Your task to perform on an android device: Search for Mexican restaurants on Maps Image 0: 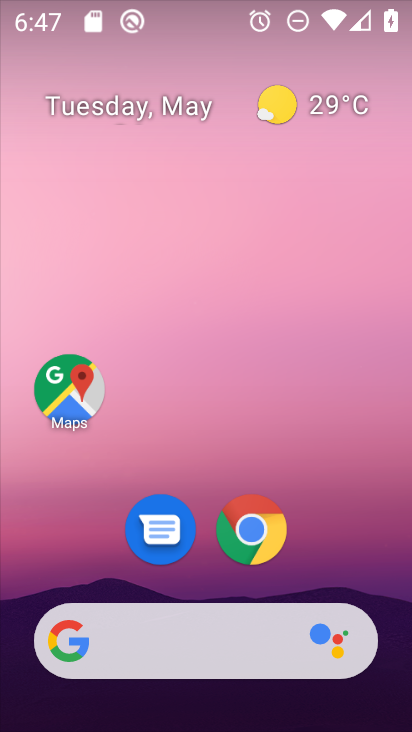
Step 0: drag from (377, 623) to (243, 198)
Your task to perform on an android device: Search for Mexican restaurants on Maps Image 1: 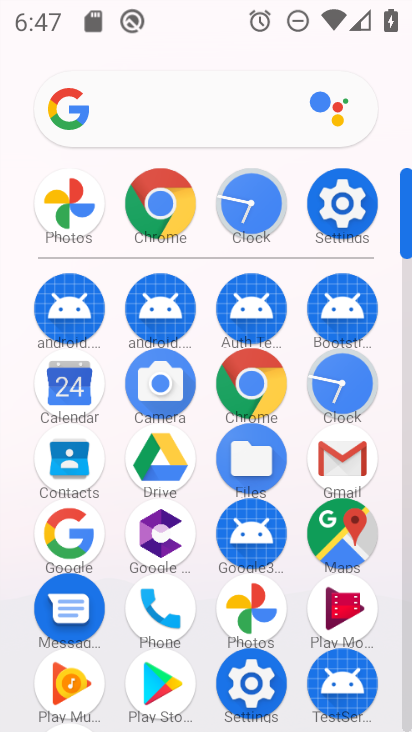
Step 1: click (333, 541)
Your task to perform on an android device: Search for Mexican restaurants on Maps Image 2: 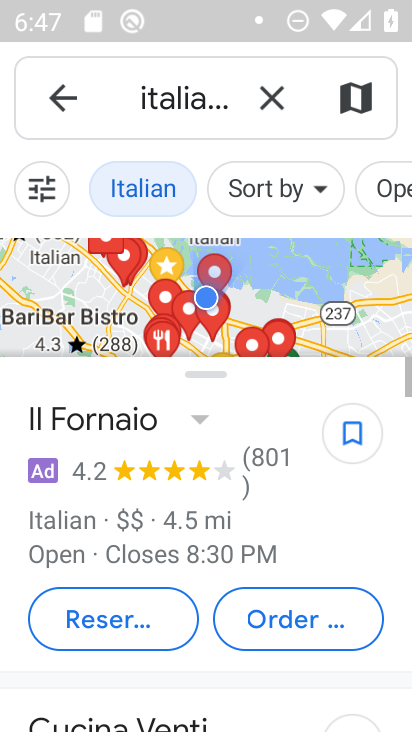
Step 2: click (264, 99)
Your task to perform on an android device: Search for Mexican restaurants on Maps Image 3: 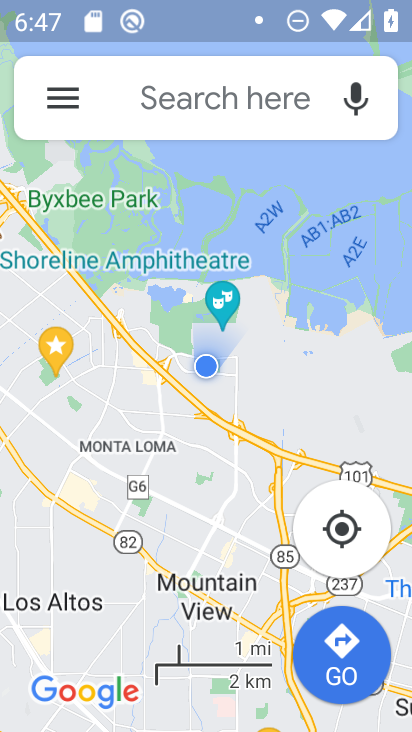
Step 3: click (205, 101)
Your task to perform on an android device: Search for Mexican restaurants on Maps Image 4: 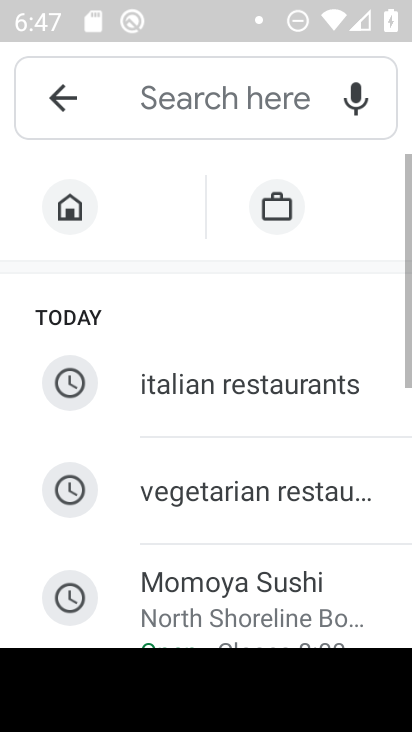
Step 4: drag from (211, 607) to (183, 267)
Your task to perform on an android device: Search for Mexican restaurants on Maps Image 5: 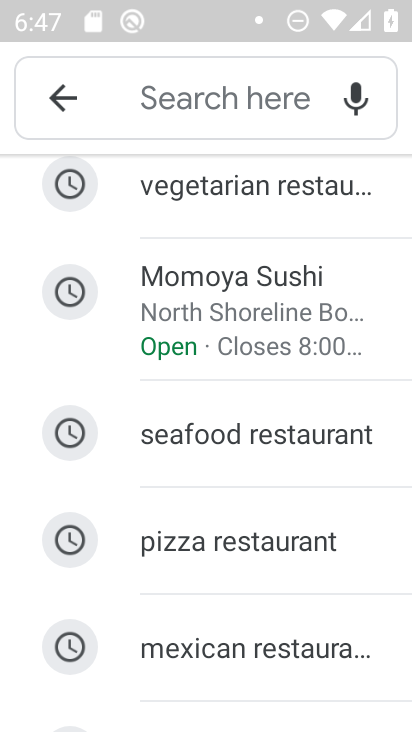
Step 5: click (231, 643)
Your task to perform on an android device: Search for Mexican restaurants on Maps Image 6: 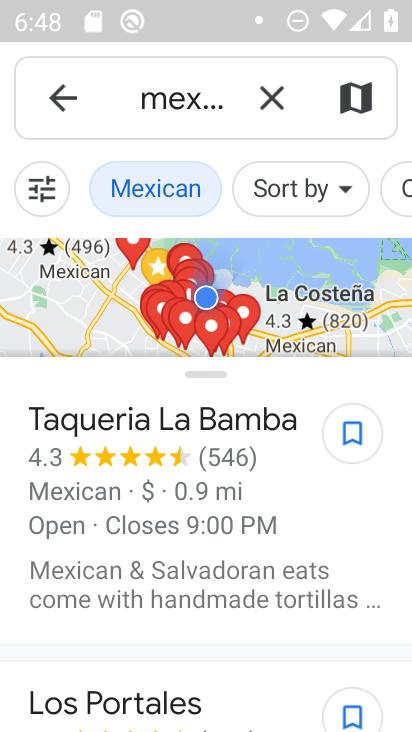
Step 6: task complete